Your task to perform on an android device: Play the latest video from the Washington Post Image 0: 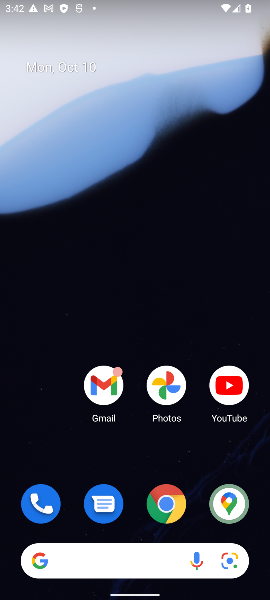
Step 0: drag from (147, 429) to (113, 598)
Your task to perform on an android device: Play the latest video from the Washington Post Image 1: 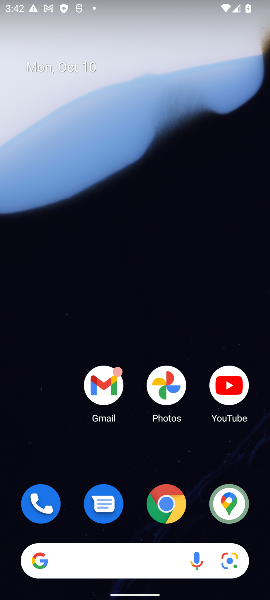
Step 1: drag from (95, 528) to (185, 170)
Your task to perform on an android device: Play the latest video from the Washington Post Image 2: 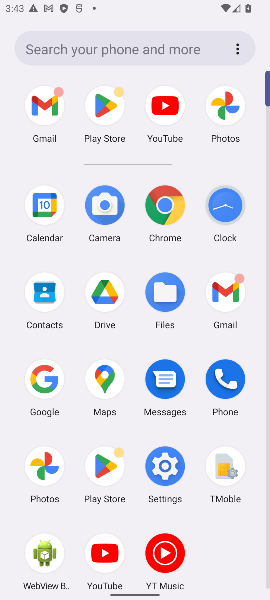
Step 2: click (114, 558)
Your task to perform on an android device: Play the latest video from the Washington Post Image 3: 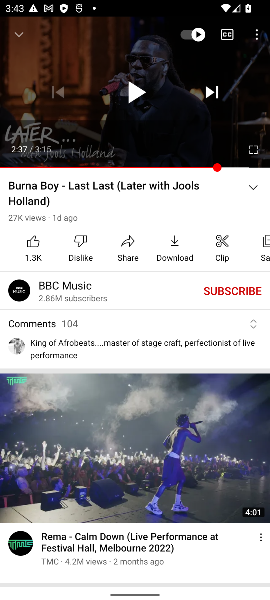
Step 3: press back button
Your task to perform on an android device: Play the latest video from the Washington Post Image 4: 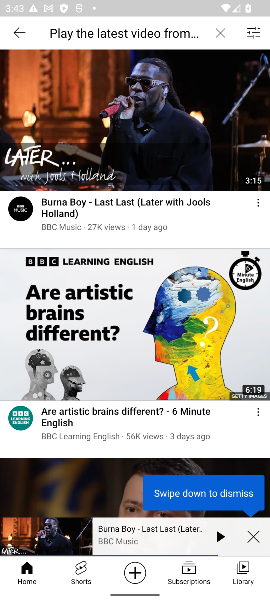
Step 4: press back button
Your task to perform on an android device: Play the latest video from the Washington Post Image 5: 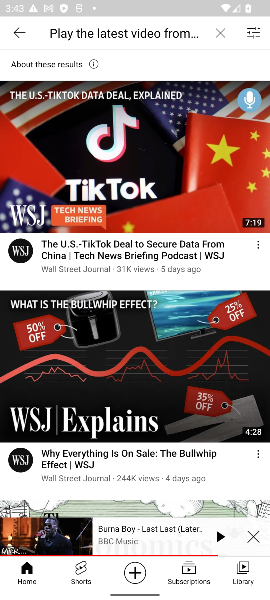
Step 5: press back button
Your task to perform on an android device: Play the latest video from the Washington Post Image 6: 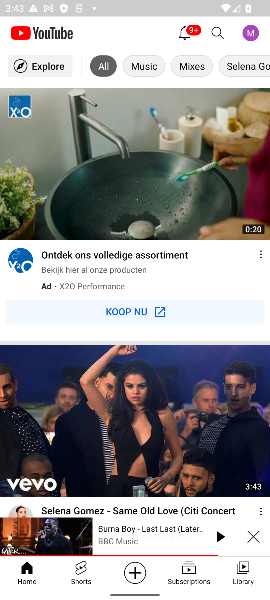
Step 6: click (219, 33)
Your task to perform on an android device: Play the latest video from the Washington Post Image 7: 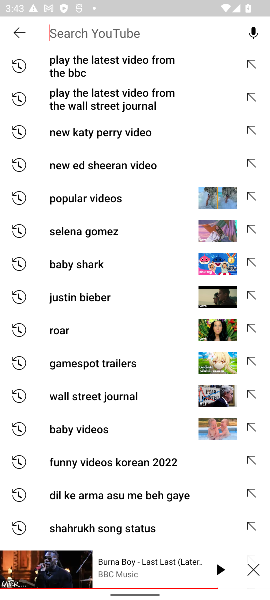
Step 7: type "Play the latest video from the Washington Post"
Your task to perform on an android device: Play the latest video from the Washington Post Image 8: 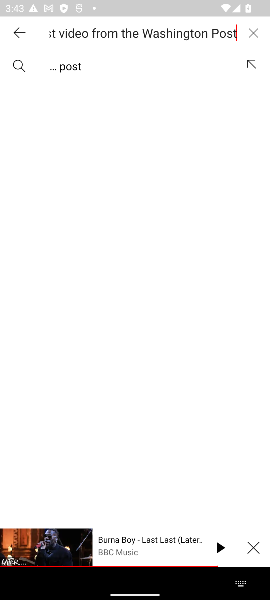
Step 8: press enter
Your task to perform on an android device: Play the latest video from the Washington Post Image 9: 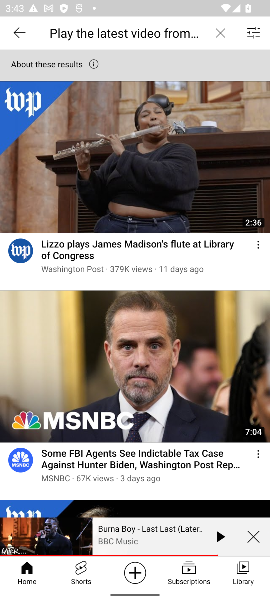
Step 9: click (130, 203)
Your task to perform on an android device: Play the latest video from the Washington Post Image 10: 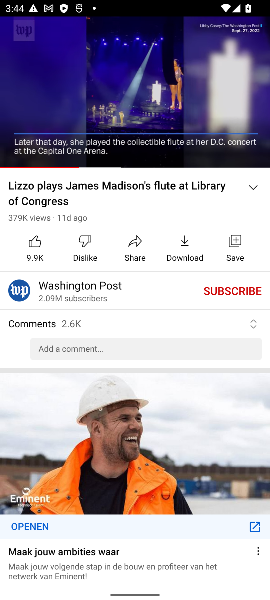
Step 10: task complete